Your task to perform on an android device: move a message to another label in the gmail app Image 0: 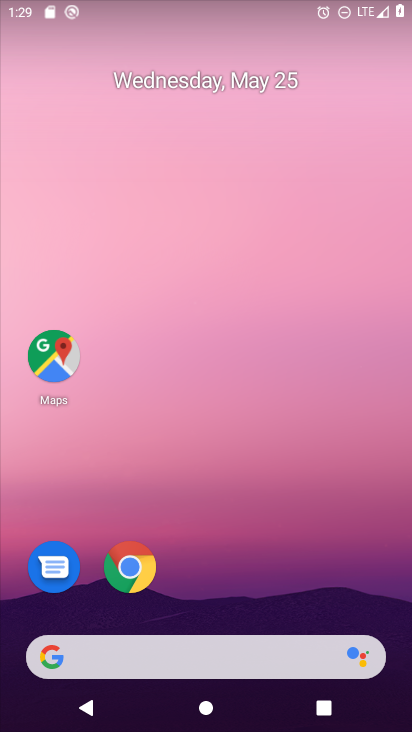
Step 0: drag from (398, 691) to (328, 212)
Your task to perform on an android device: move a message to another label in the gmail app Image 1: 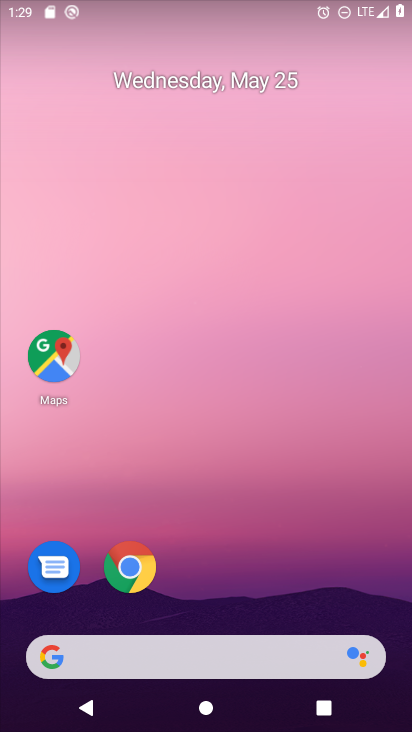
Step 1: drag from (406, 669) to (357, 165)
Your task to perform on an android device: move a message to another label in the gmail app Image 2: 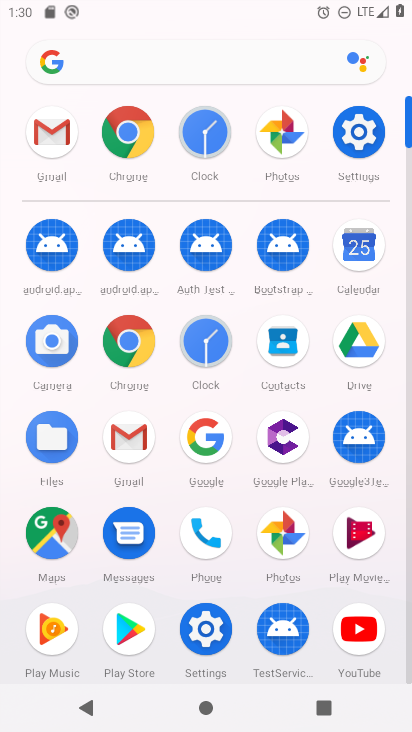
Step 2: click (124, 432)
Your task to perform on an android device: move a message to another label in the gmail app Image 3: 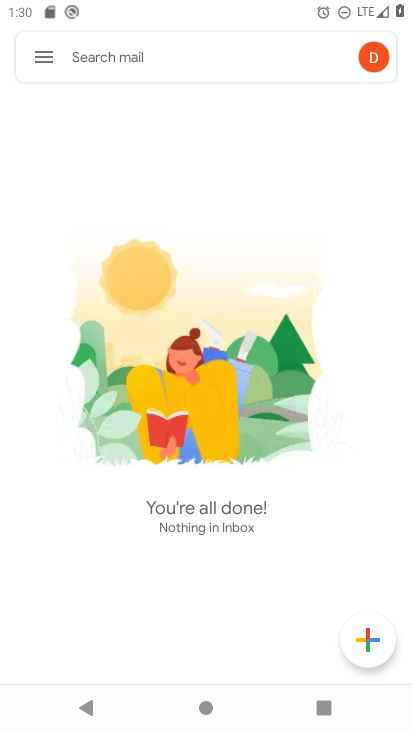
Step 3: click (32, 50)
Your task to perform on an android device: move a message to another label in the gmail app Image 4: 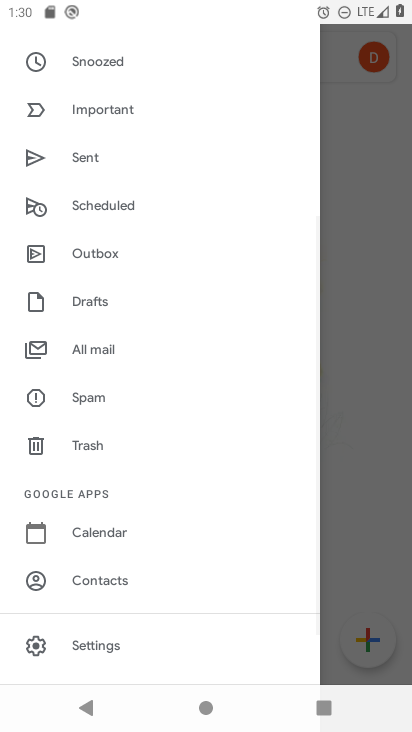
Step 4: drag from (219, 126) to (223, 518)
Your task to perform on an android device: move a message to another label in the gmail app Image 5: 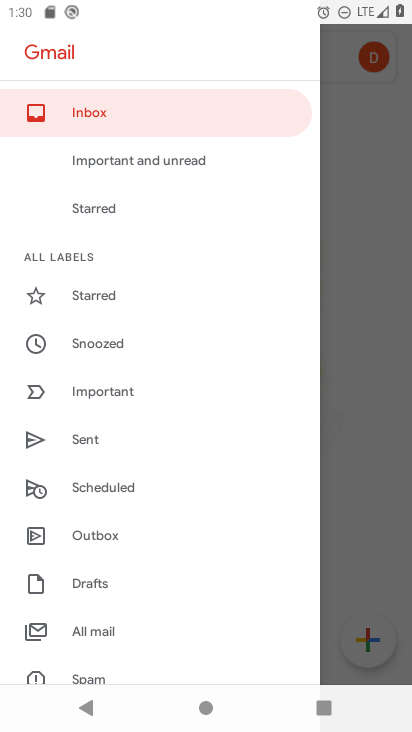
Step 5: click (108, 116)
Your task to perform on an android device: move a message to another label in the gmail app Image 6: 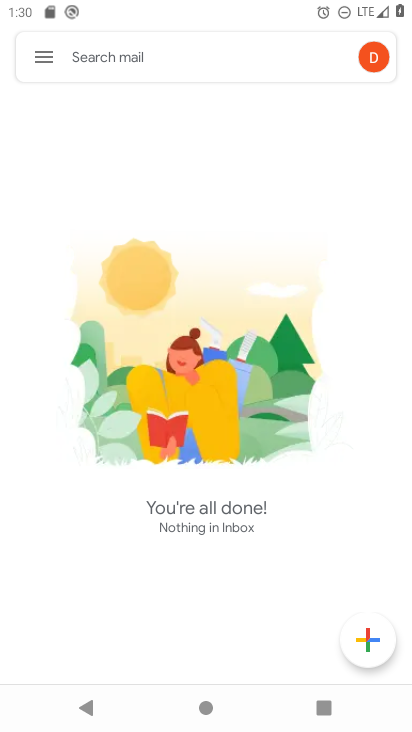
Step 6: task complete